Your task to perform on an android device: Check the news Image 0: 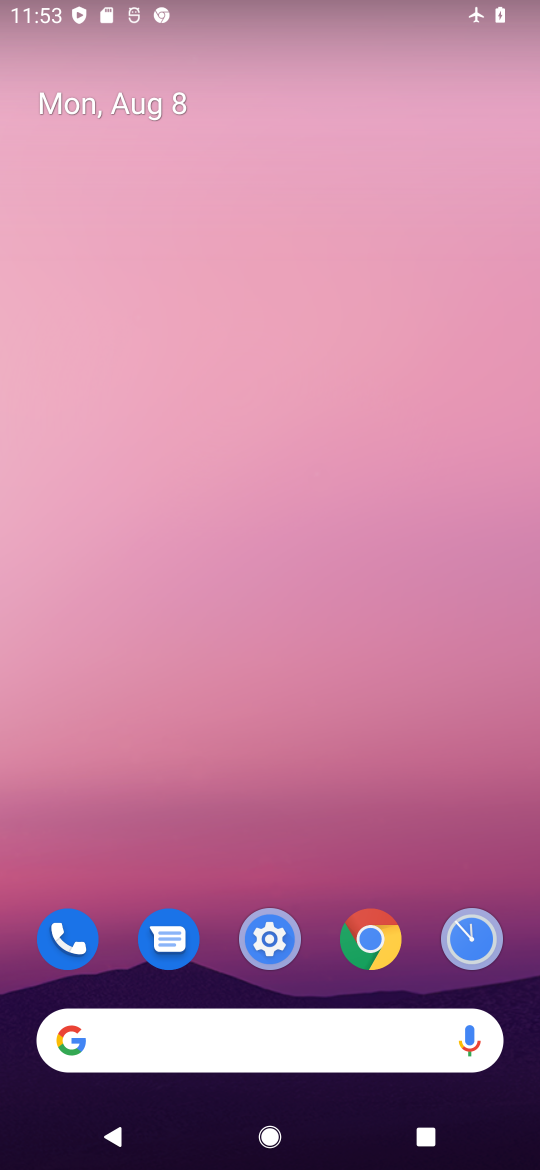
Step 0: click (376, 938)
Your task to perform on an android device: Check the news Image 1: 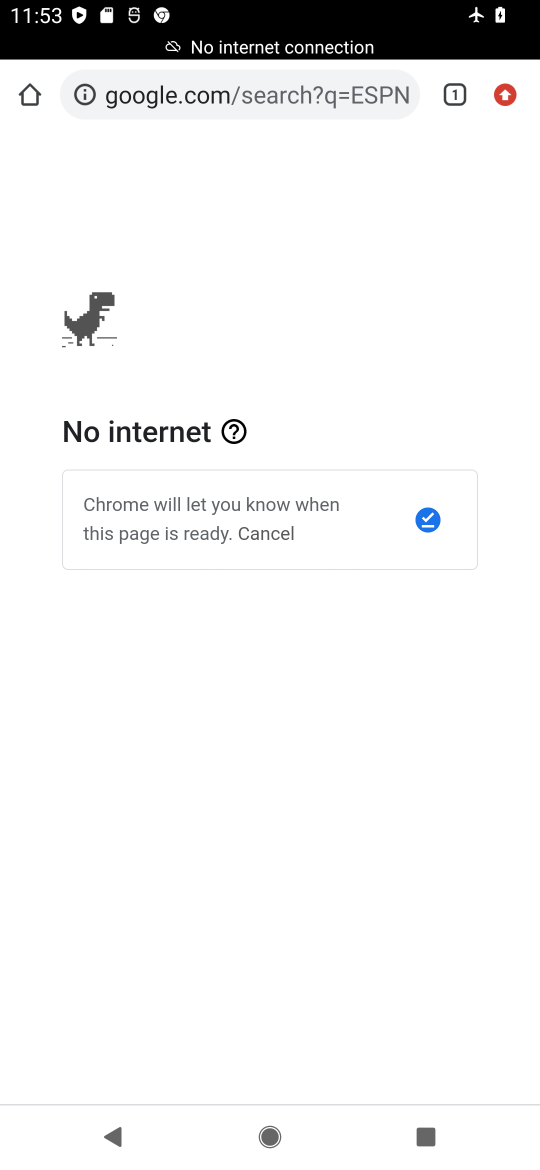
Step 1: click (389, 96)
Your task to perform on an android device: Check the news Image 2: 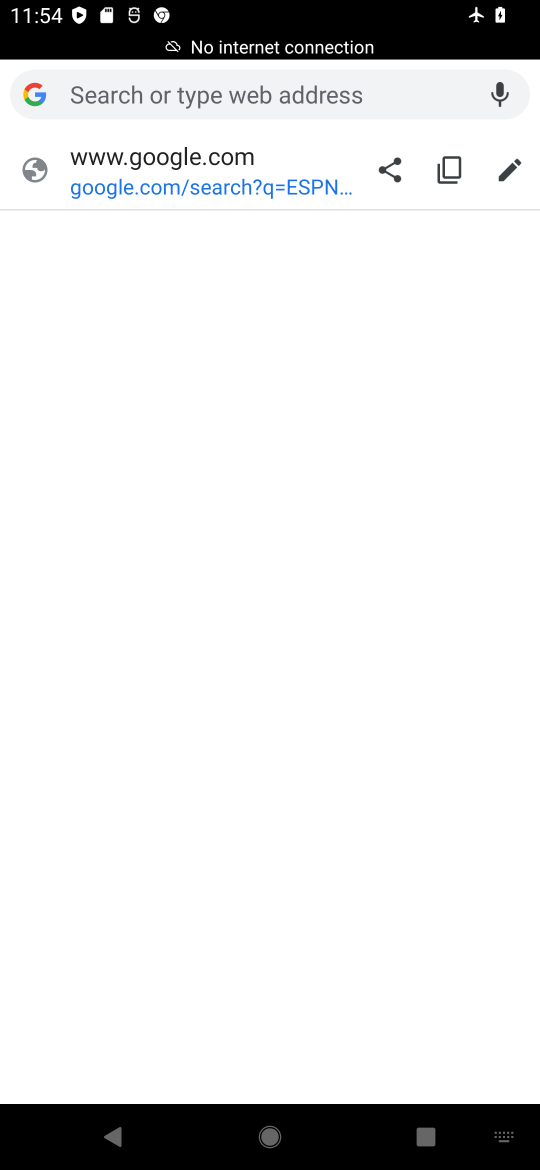
Step 2: type "news"
Your task to perform on an android device: Check the news Image 3: 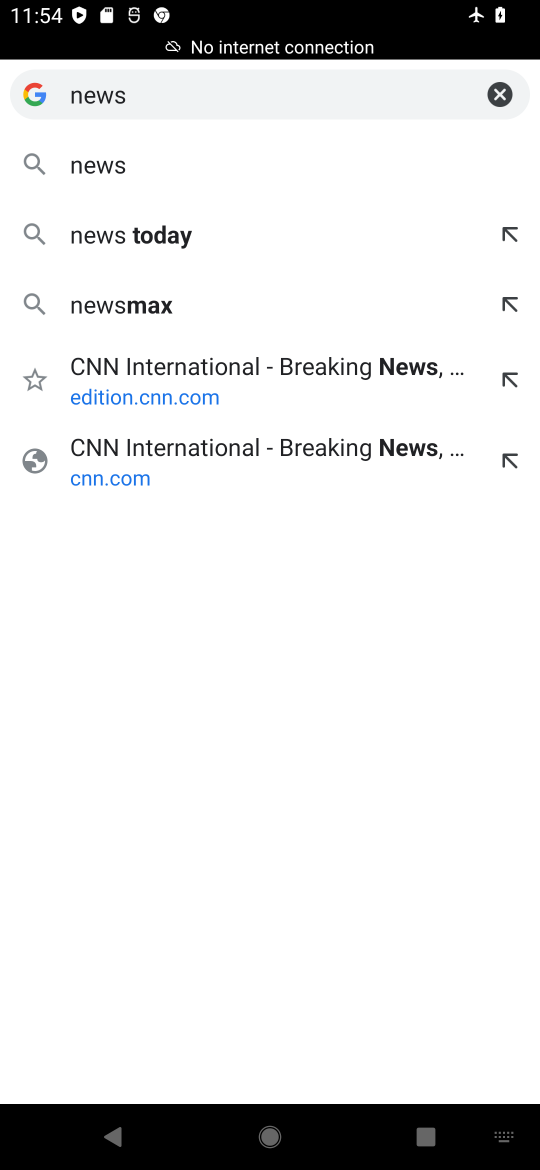
Step 3: click (110, 172)
Your task to perform on an android device: Check the news Image 4: 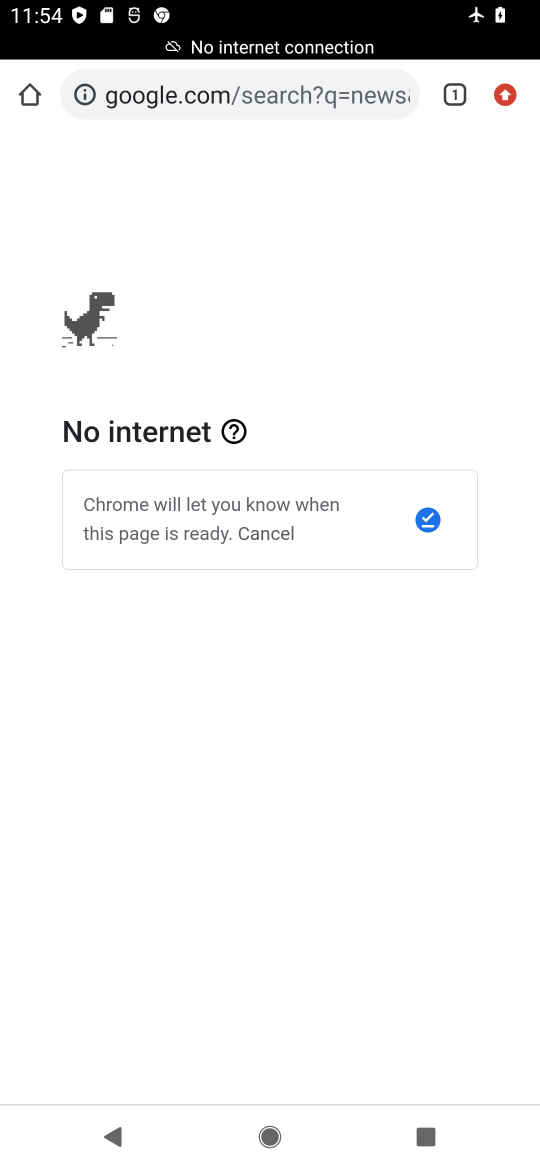
Step 4: task complete